Your task to perform on an android device: Search for the best selling jewelry on Etsy. Image 0: 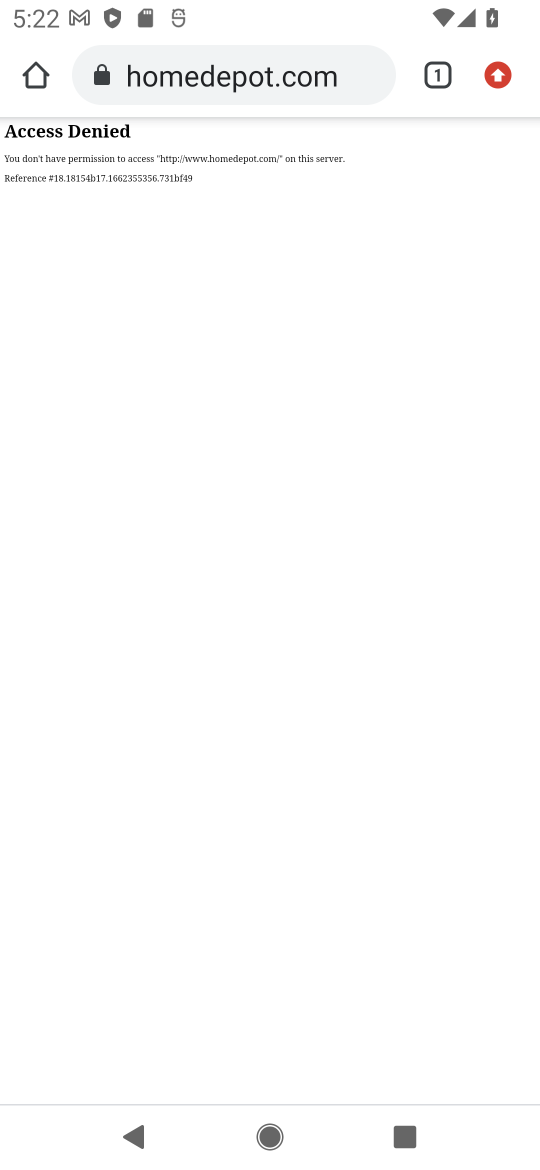
Step 0: press home button
Your task to perform on an android device: Search for the best selling jewelry on Etsy. Image 1: 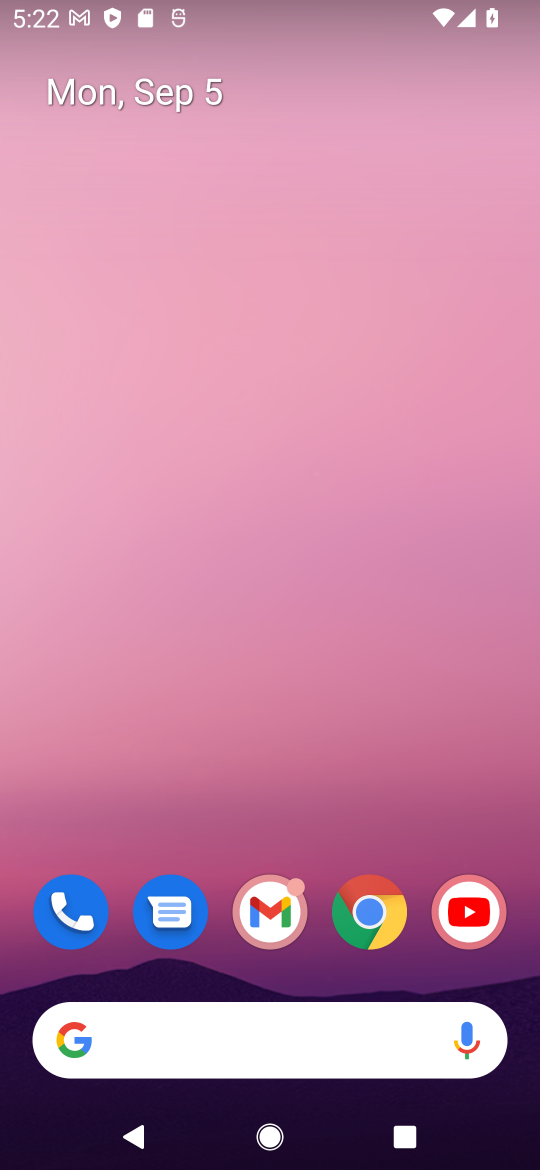
Step 1: click (383, 928)
Your task to perform on an android device: Search for the best selling jewelry on Etsy. Image 2: 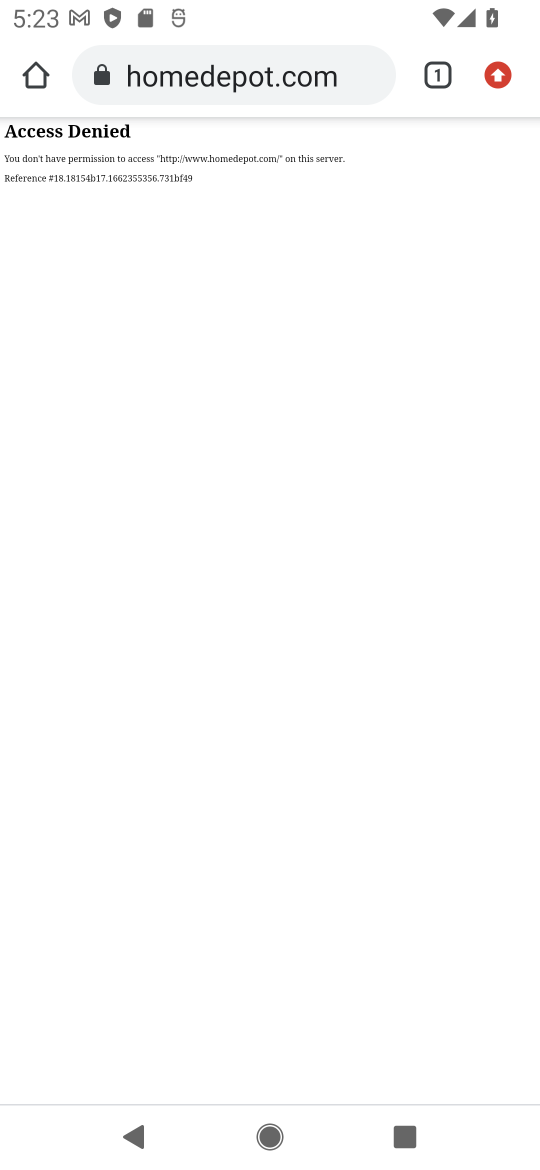
Step 2: click (264, 99)
Your task to perform on an android device: Search for the best selling jewelry on Etsy. Image 3: 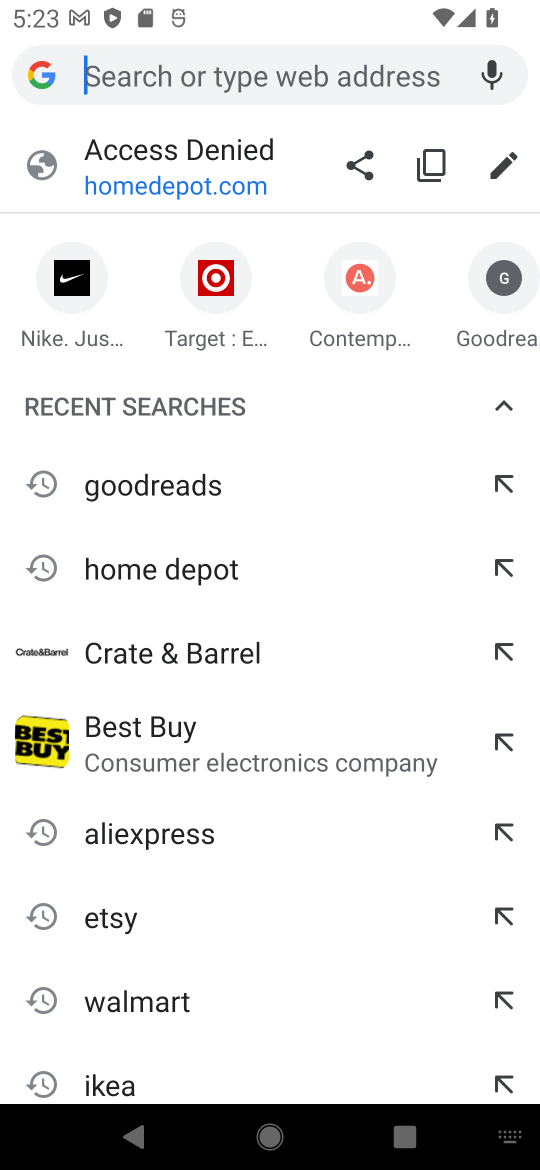
Step 3: type "etsy"
Your task to perform on an android device: Search for the best selling jewelry on Etsy. Image 4: 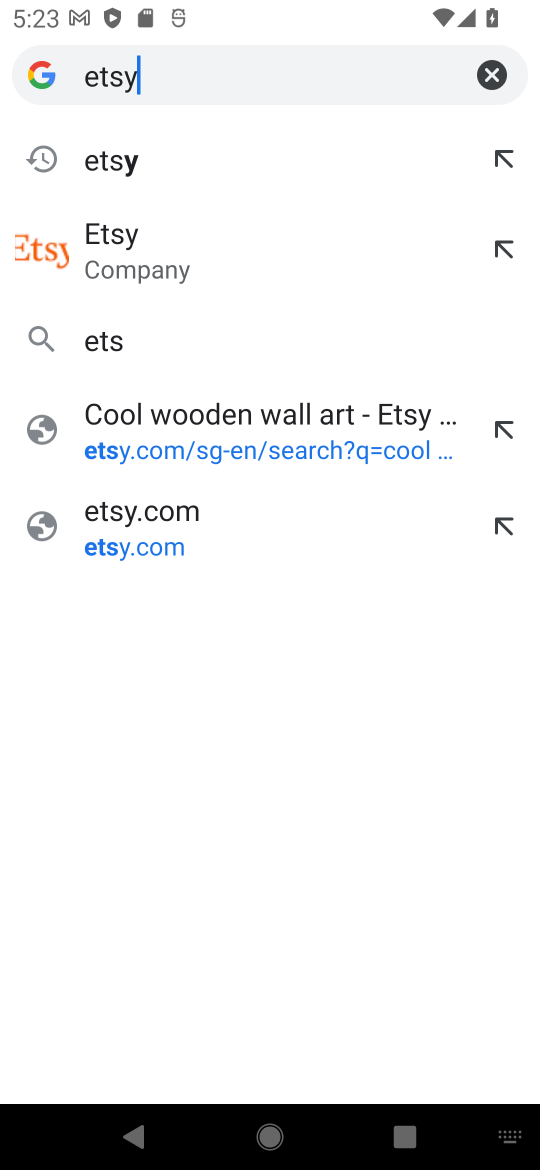
Step 4: type ""
Your task to perform on an android device: Search for the best selling jewelry on Etsy. Image 5: 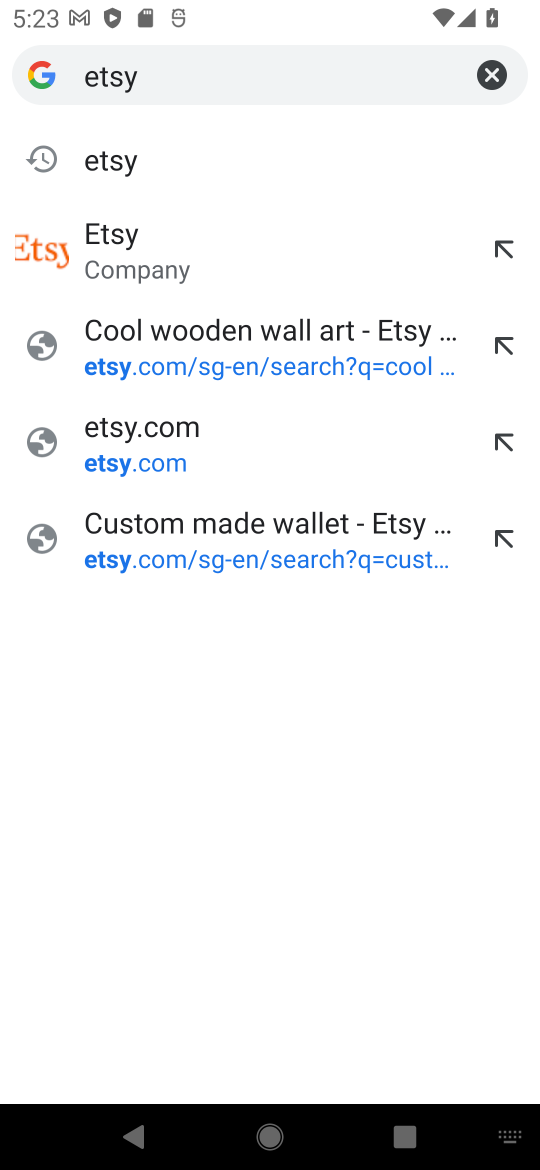
Step 5: press enter
Your task to perform on an android device: Search for the best selling jewelry on Etsy. Image 6: 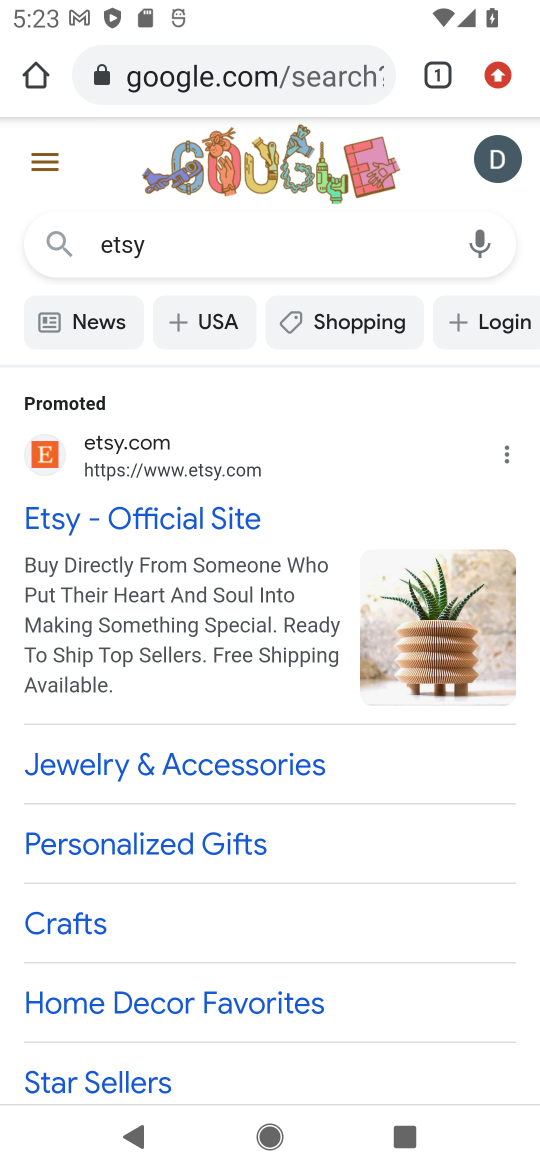
Step 6: click (214, 507)
Your task to perform on an android device: Search for the best selling jewelry on Etsy. Image 7: 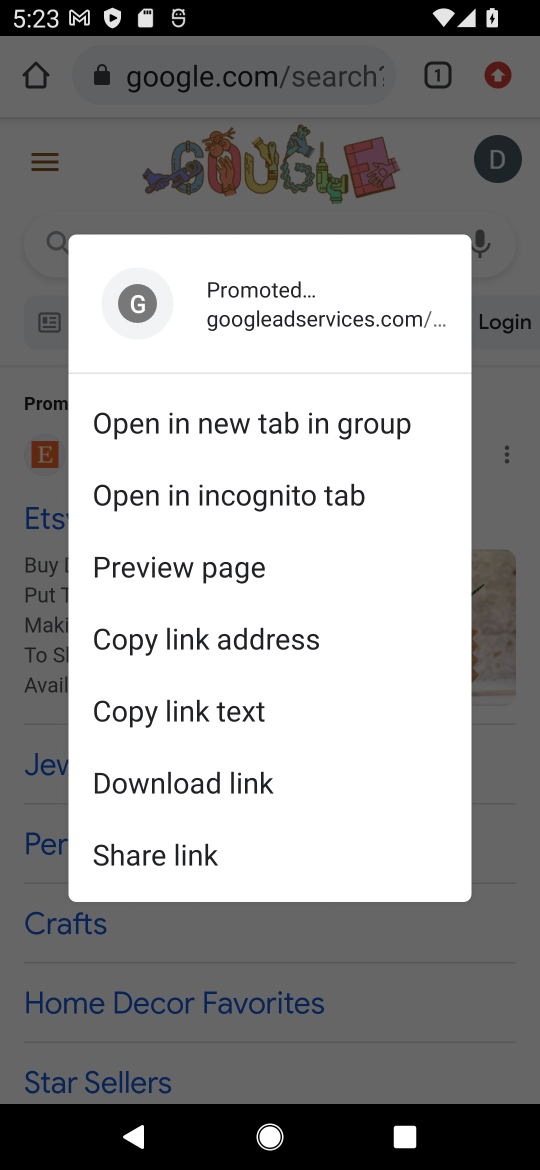
Step 7: click (501, 487)
Your task to perform on an android device: Search for the best selling jewelry on Etsy. Image 8: 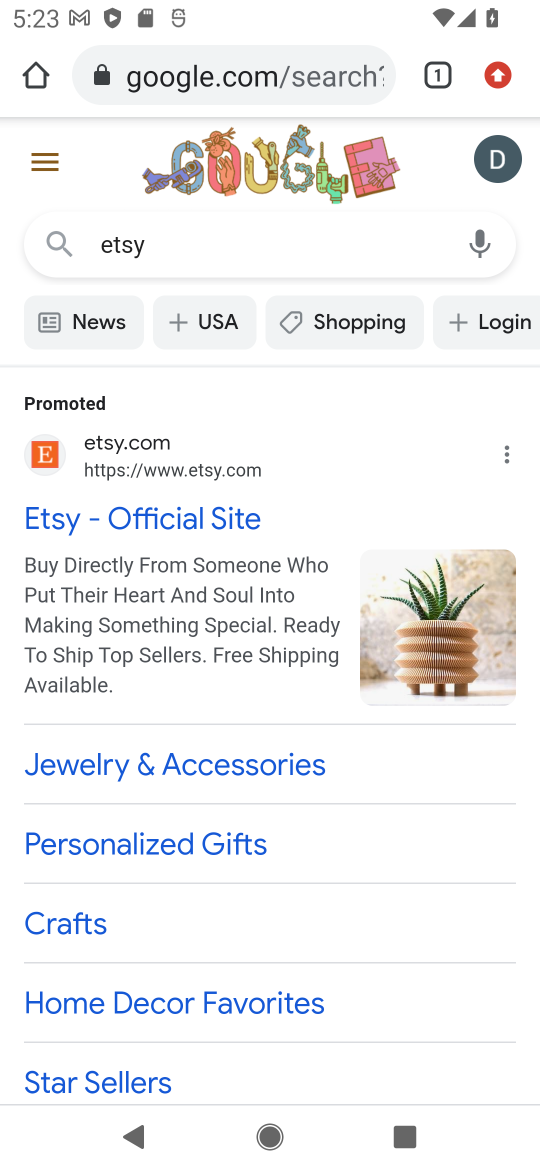
Step 8: click (136, 515)
Your task to perform on an android device: Search for the best selling jewelry on Etsy. Image 9: 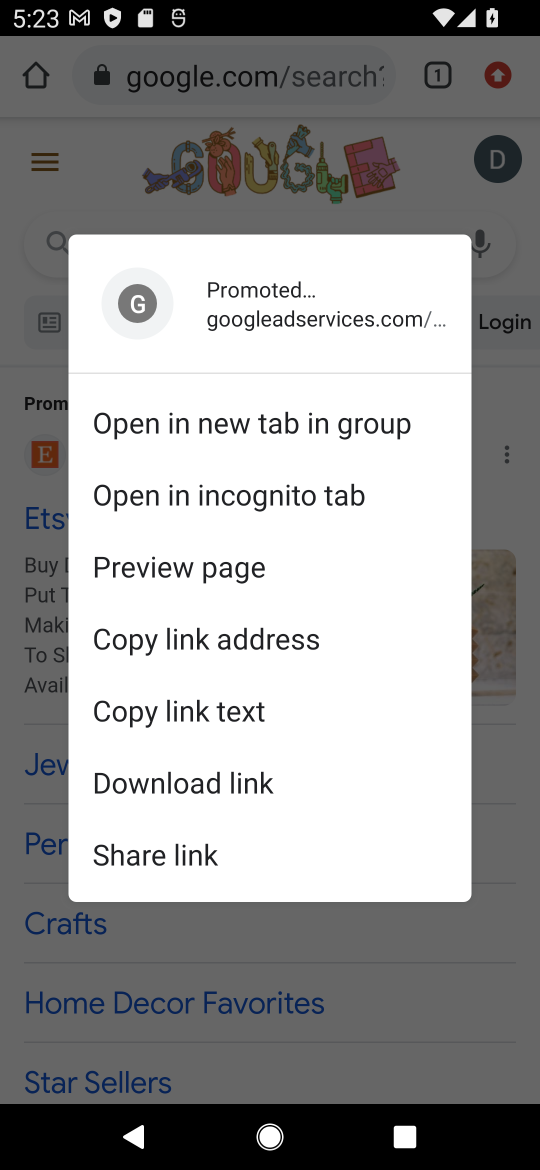
Step 9: click (23, 573)
Your task to perform on an android device: Search for the best selling jewelry on Etsy. Image 10: 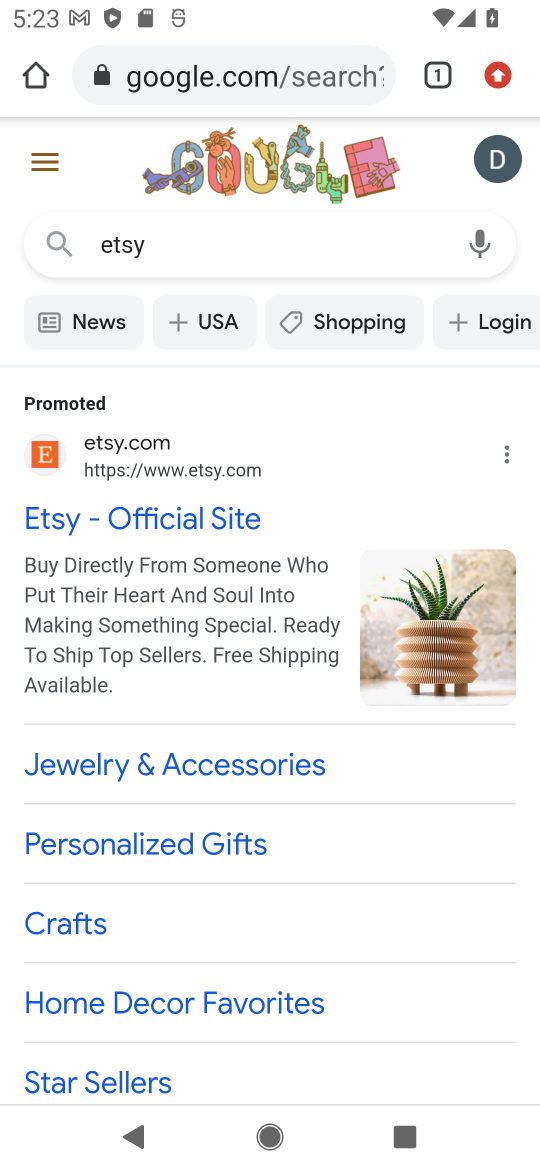
Step 10: click (106, 523)
Your task to perform on an android device: Search for the best selling jewelry on Etsy. Image 11: 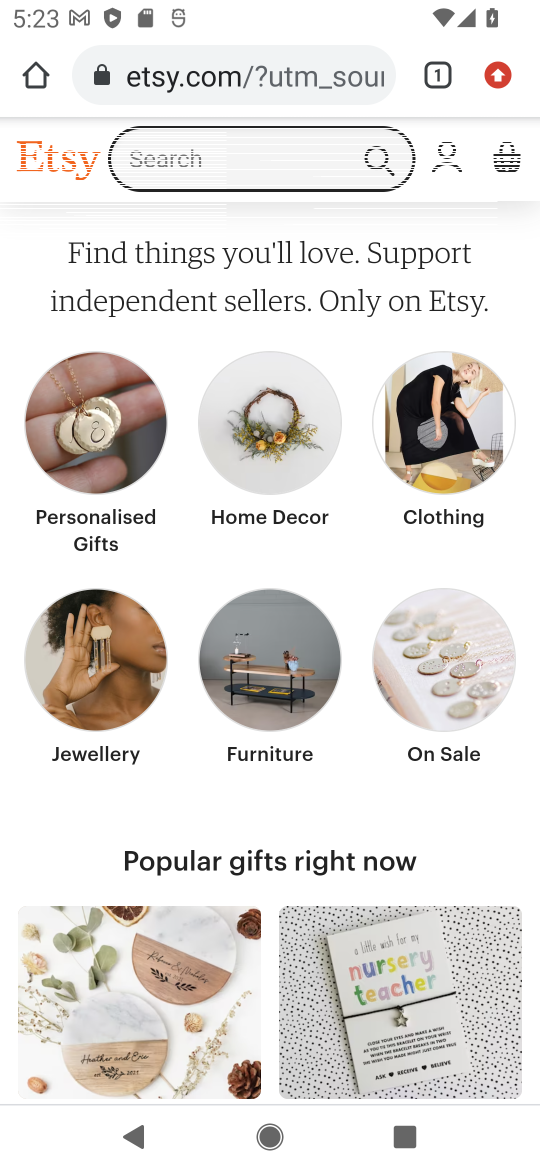
Step 11: click (222, 165)
Your task to perform on an android device: Search for the best selling jewelry on Etsy. Image 12: 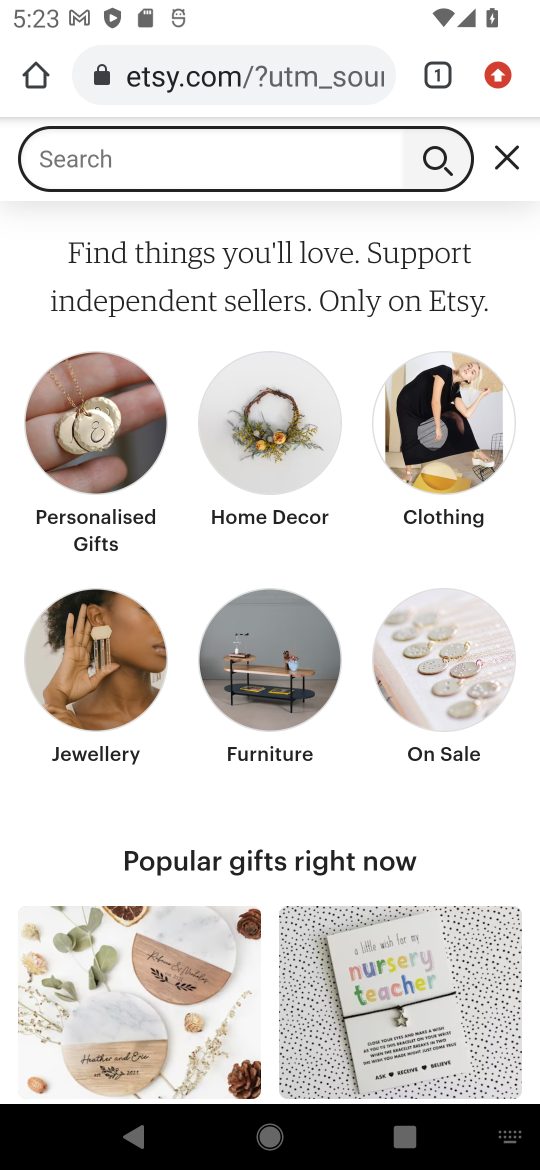
Step 12: type "best selling jewelry"
Your task to perform on an android device: Search for the best selling jewelry on Etsy. Image 13: 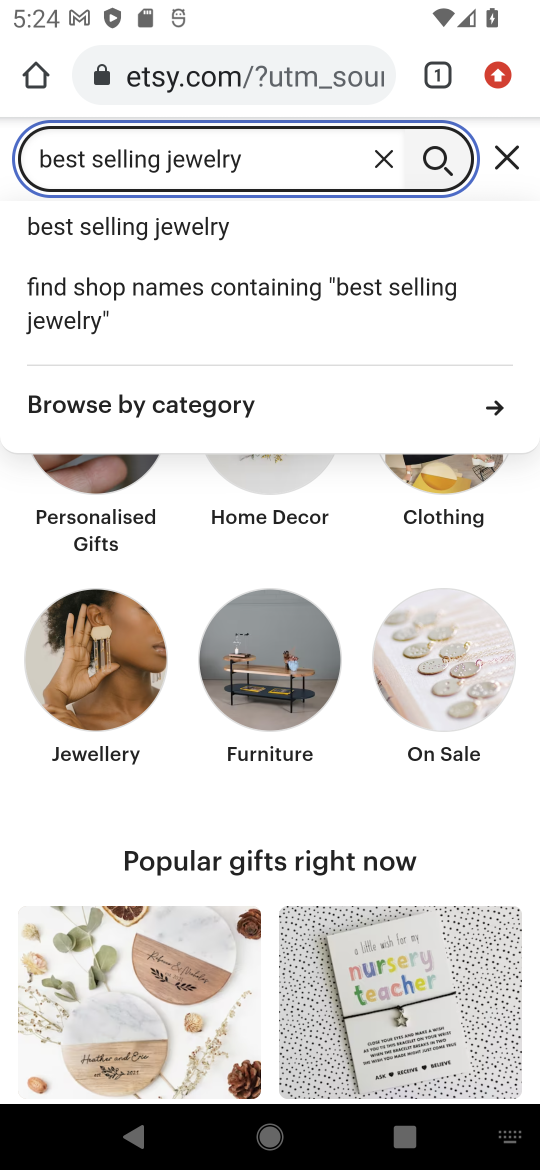
Step 13: press enter
Your task to perform on an android device: Search for the best selling jewelry on Etsy. Image 14: 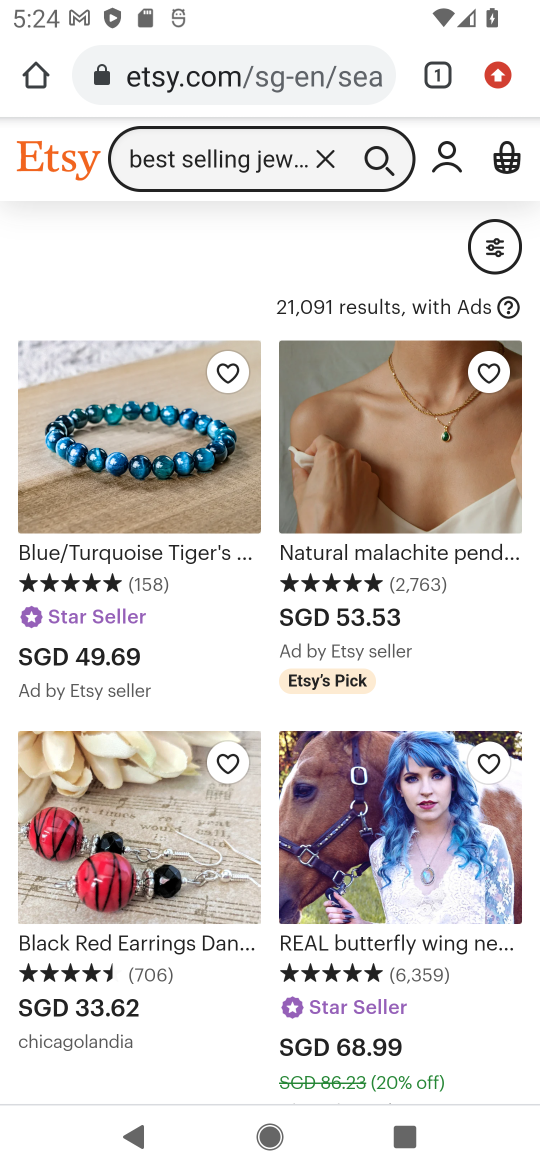
Step 14: click (278, 635)
Your task to perform on an android device: Search for the best selling jewelry on Etsy. Image 15: 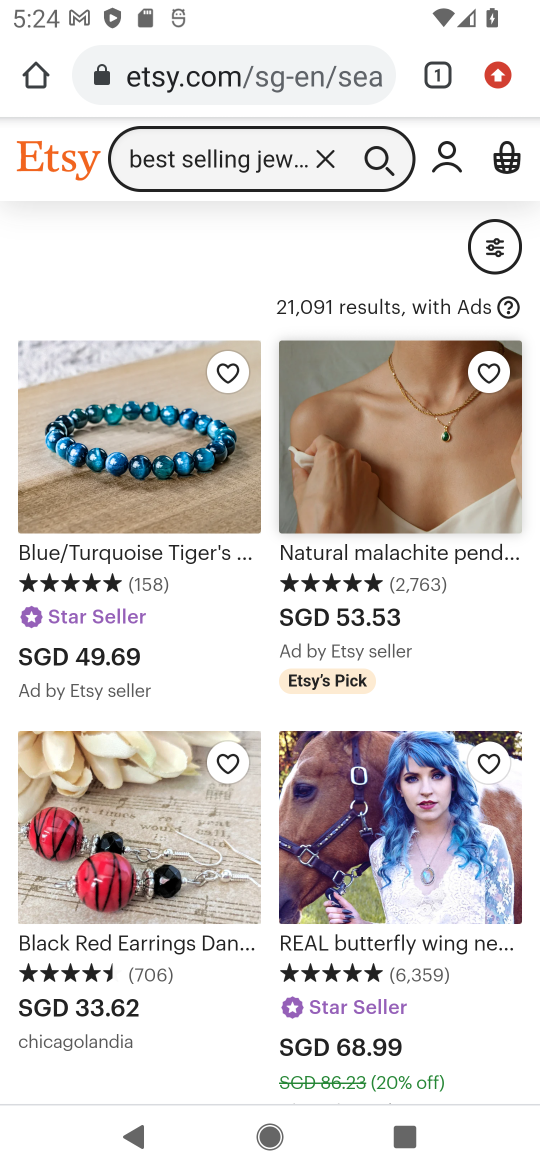
Step 15: click (485, 258)
Your task to perform on an android device: Search for the best selling jewelry on Etsy. Image 16: 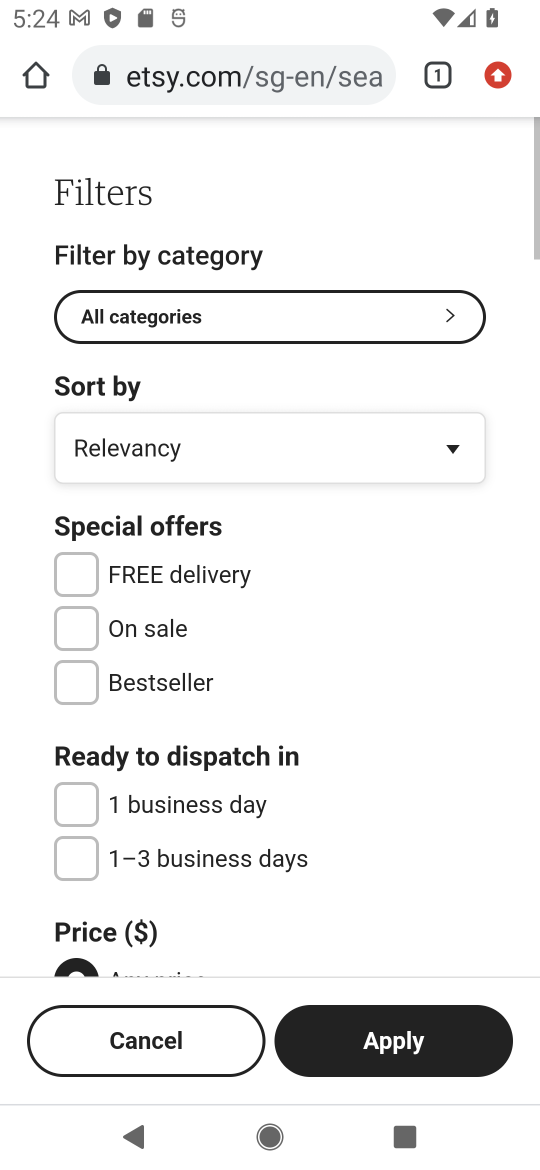
Step 16: click (141, 682)
Your task to perform on an android device: Search for the best selling jewelry on Etsy. Image 17: 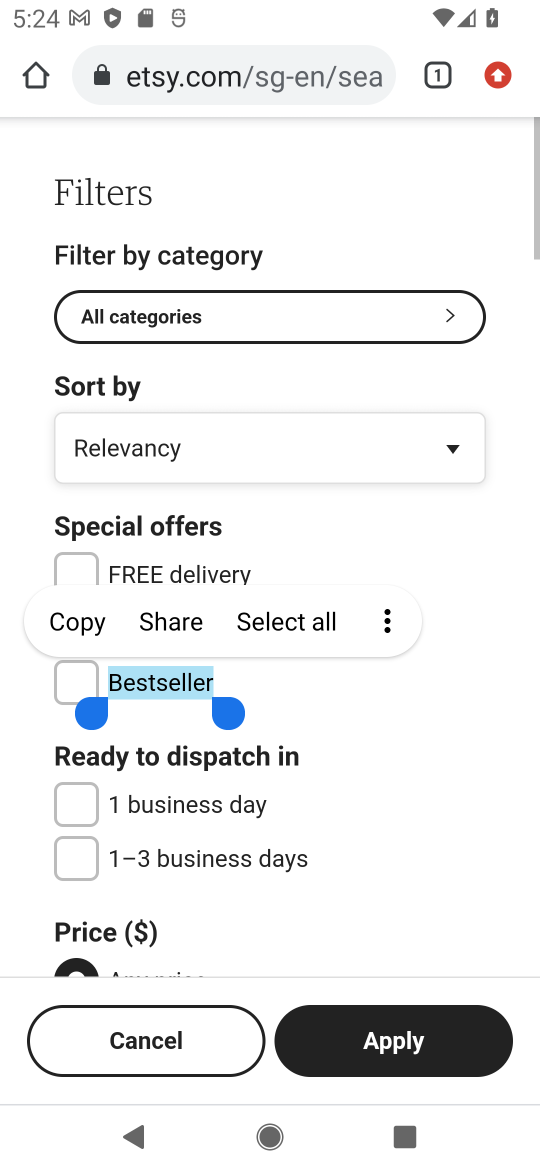
Step 17: click (84, 679)
Your task to perform on an android device: Search for the best selling jewelry on Etsy. Image 18: 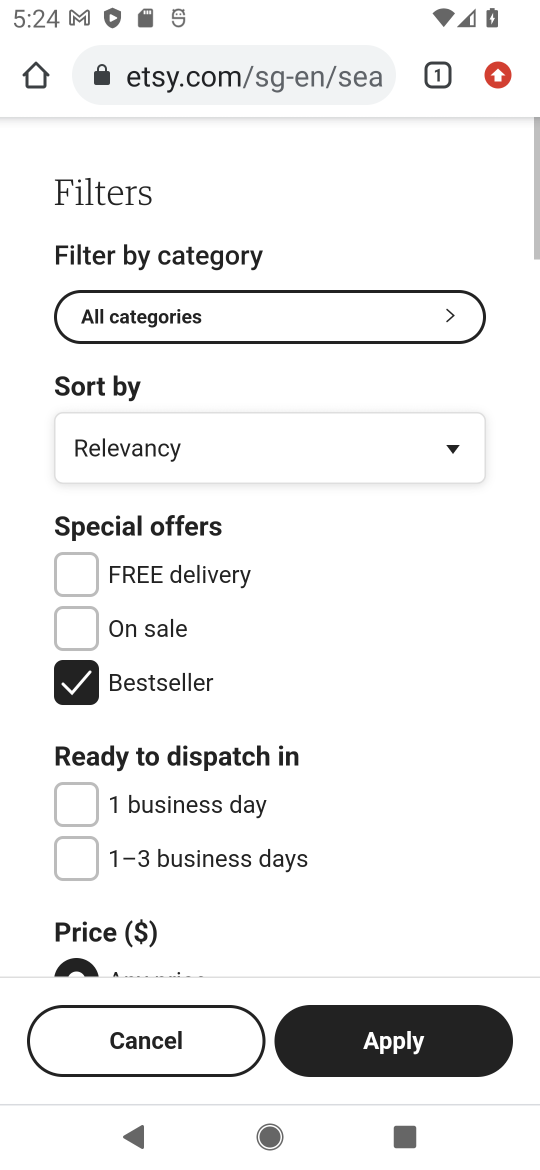
Step 18: click (437, 1051)
Your task to perform on an android device: Search for the best selling jewelry on Etsy. Image 19: 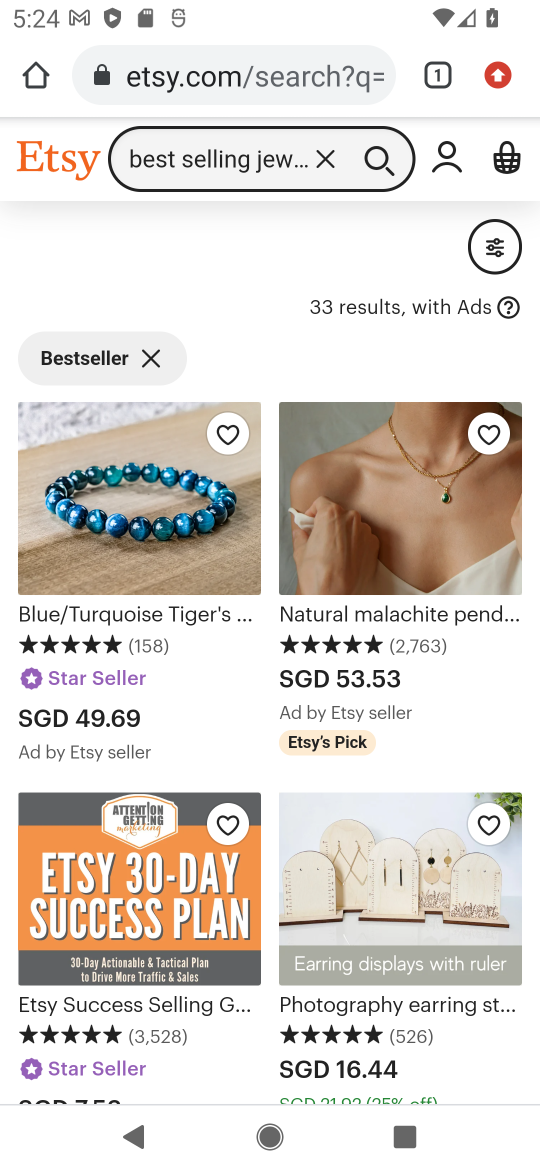
Step 19: task complete